Your task to perform on an android device: Open calendar and show me the second week of next month Image 0: 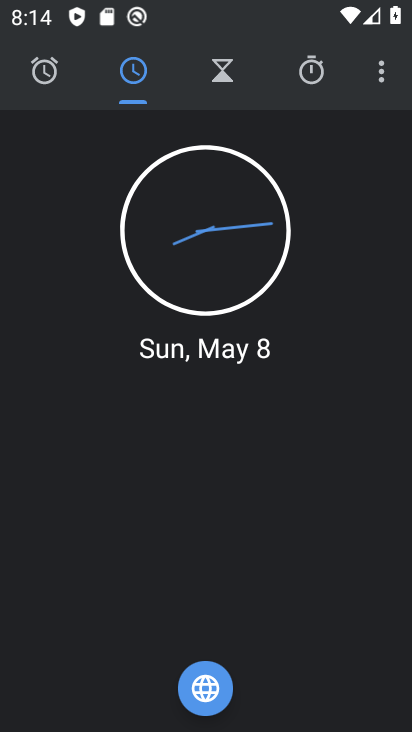
Step 0: press home button
Your task to perform on an android device: Open calendar and show me the second week of next month Image 1: 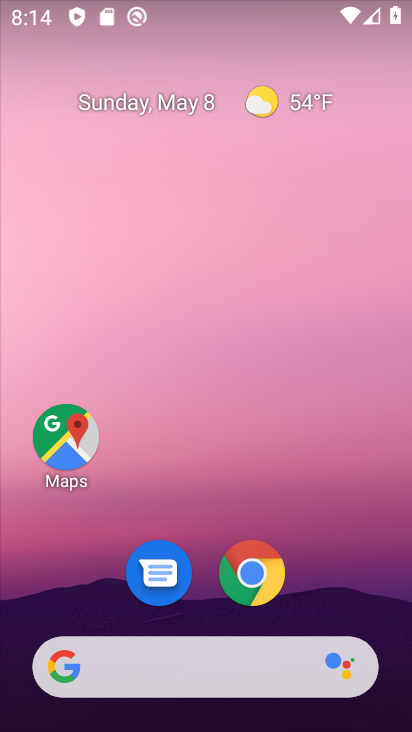
Step 1: drag from (248, 714) to (231, 240)
Your task to perform on an android device: Open calendar and show me the second week of next month Image 2: 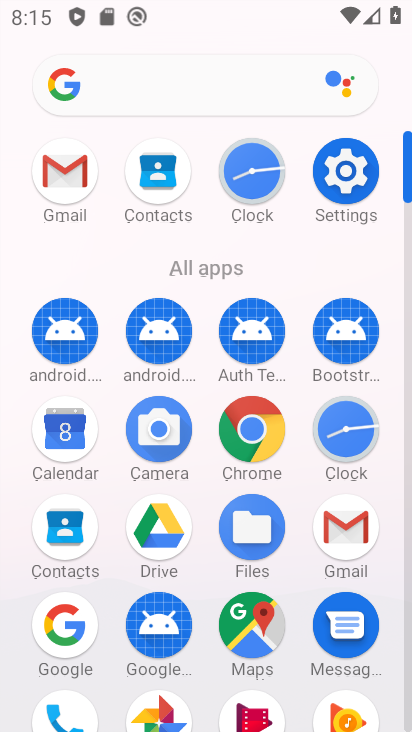
Step 2: click (60, 450)
Your task to perform on an android device: Open calendar and show me the second week of next month Image 3: 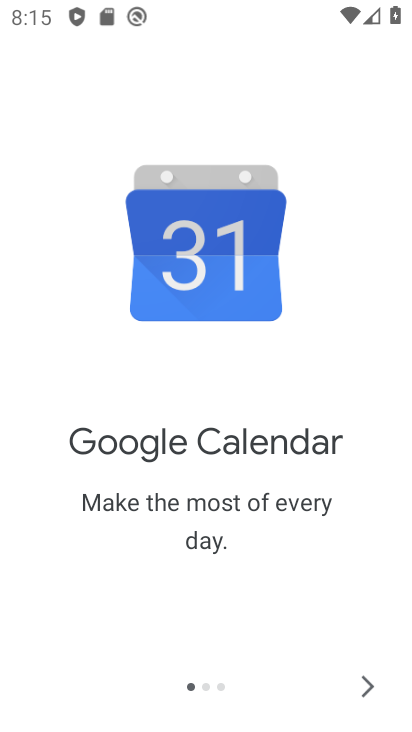
Step 3: click (363, 688)
Your task to perform on an android device: Open calendar and show me the second week of next month Image 4: 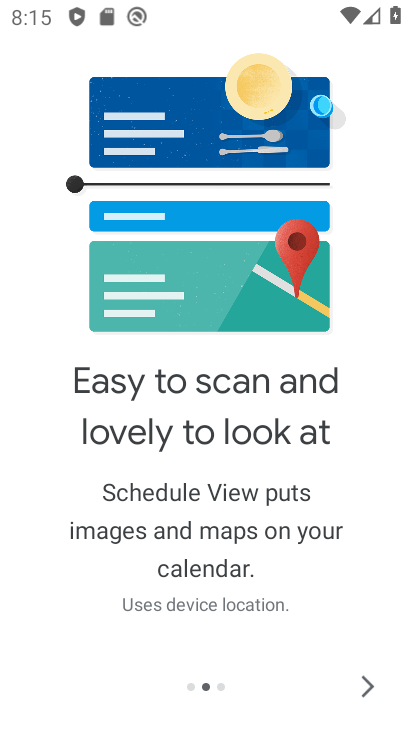
Step 4: click (362, 683)
Your task to perform on an android device: Open calendar and show me the second week of next month Image 5: 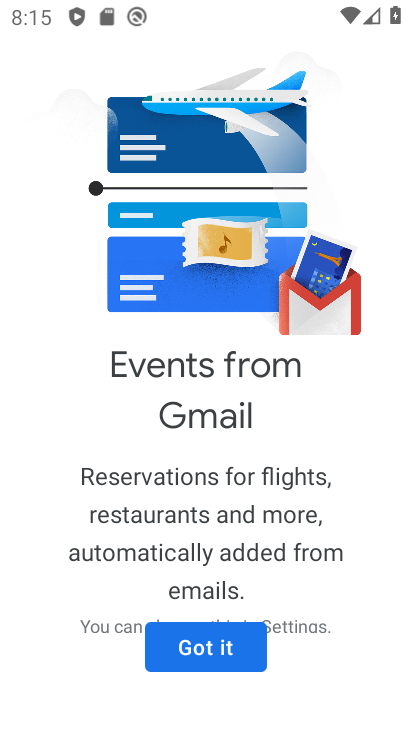
Step 5: click (191, 647)
Your task to perform on an android device: Open calendar and show me the second week of next month Image 6: 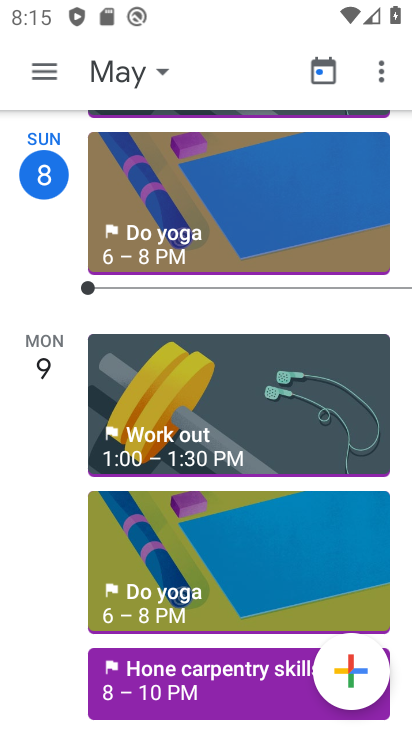
Step 6: click (108, 73)
Your task to perform on an android device: Open calendar and show me the second week of next month Image 7: 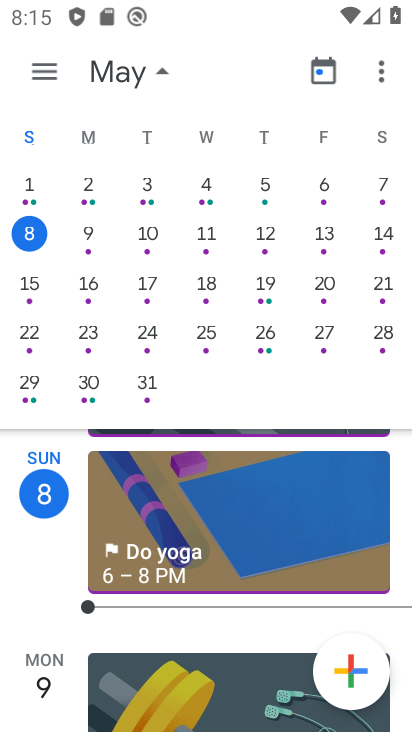
Step 7: drag from (357, 286) to (21, 194)
Your task to perform on an android device: Open calendar and show me the second week of next month Image 8: 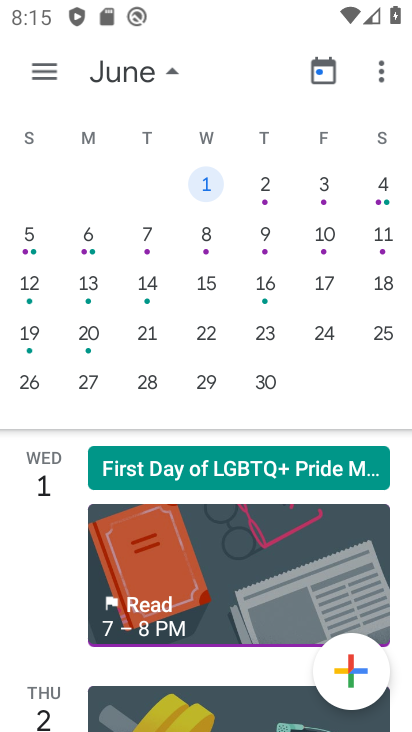
Step 8: click (87, 285)
Your task to perform on an android device: Open calendar and show me the second week of next month Image 9: 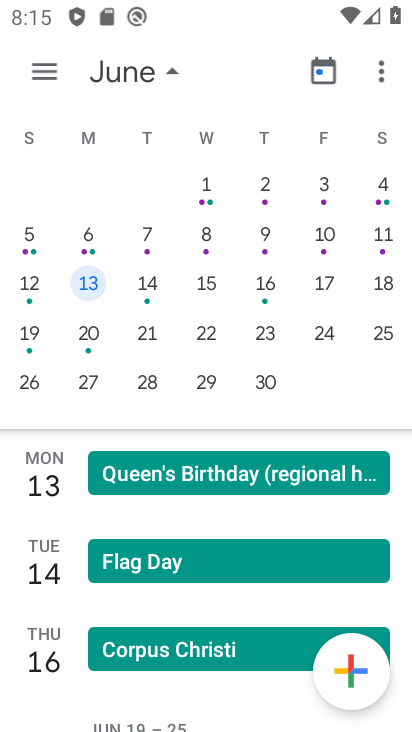
Step 9: task complete